Your task to perform on an android device: empty trash in google photos Image 0: 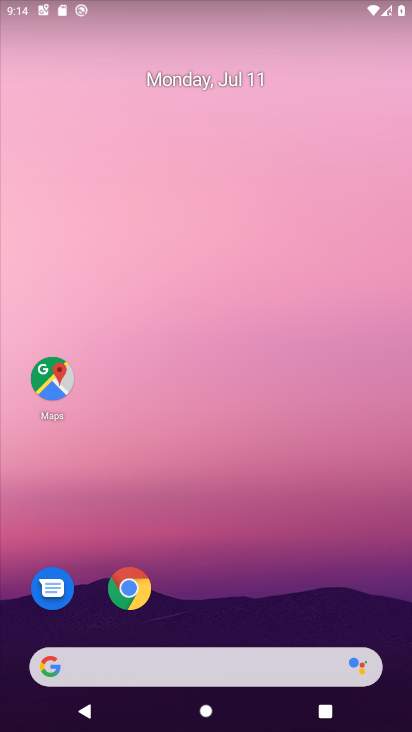
Step 0: drag from (240, 586) to (231, 257)
Your task to perform on an android device: empty trash in google photos Image 1: 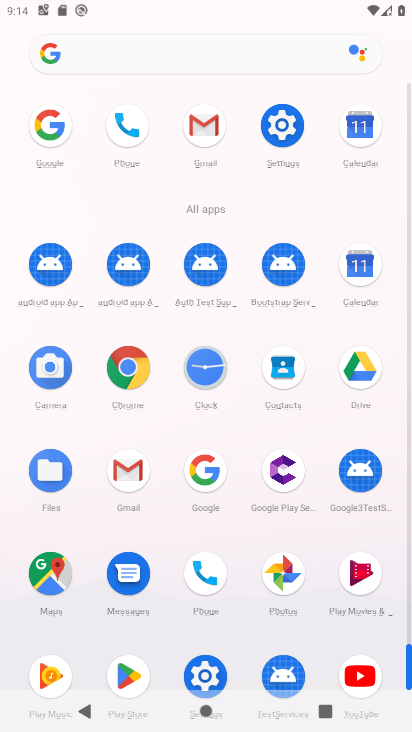
Step 1: click (289, 565)
Your task to perform on an android device: empty trash in google photos Image 2: 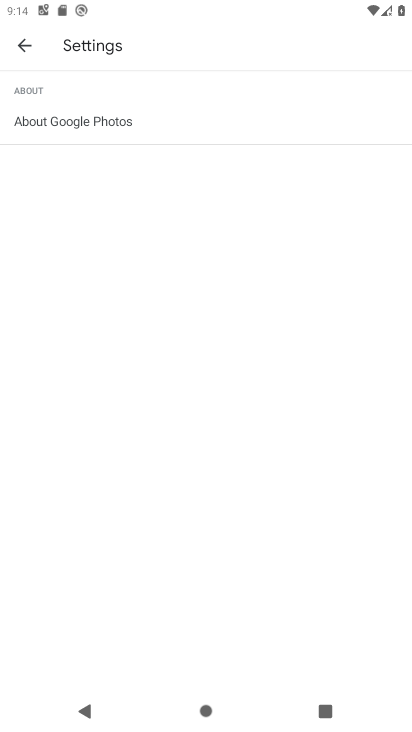
Step 2: click (25, 33)
Your task to perform on an android device: empty trash in google photos Image 3: 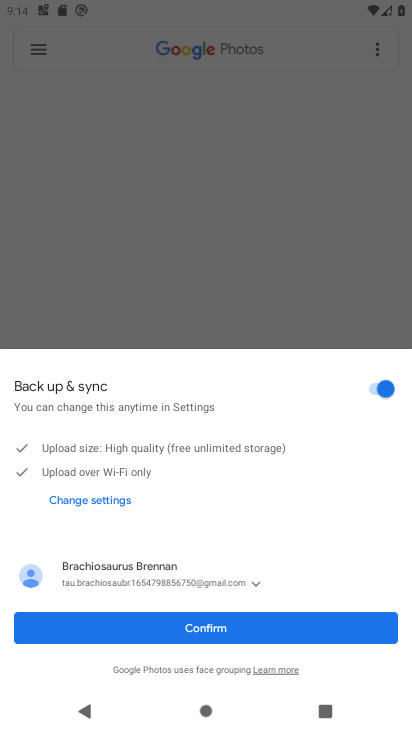
Step 3: click (215, 630)
Your task to perform on an android device: empty trash in google photos Image 4: 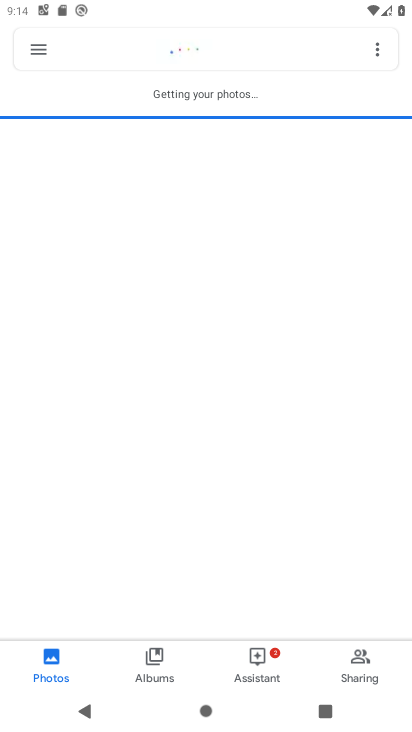
Step 4: click (30, 45)
Your task to perform on an android device: empty trash in google photos Image 5: 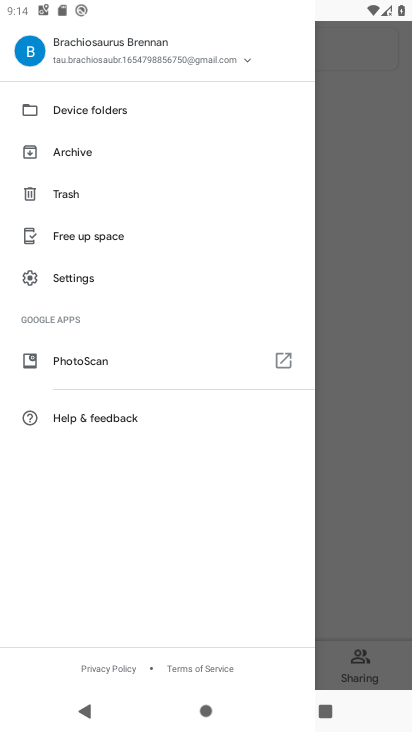
Step 5: click (76, 196)
Your task to perform on an android device: empty trash in google photos Image 6: 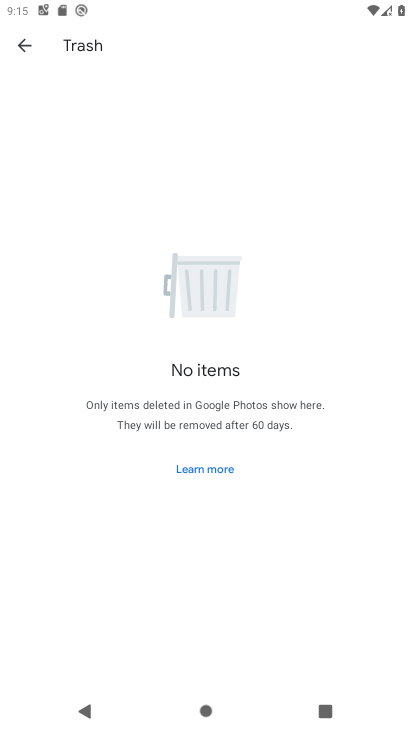
Step 6: task complete